Your task to perform on an android device: Open Yahoo.com Image 0: 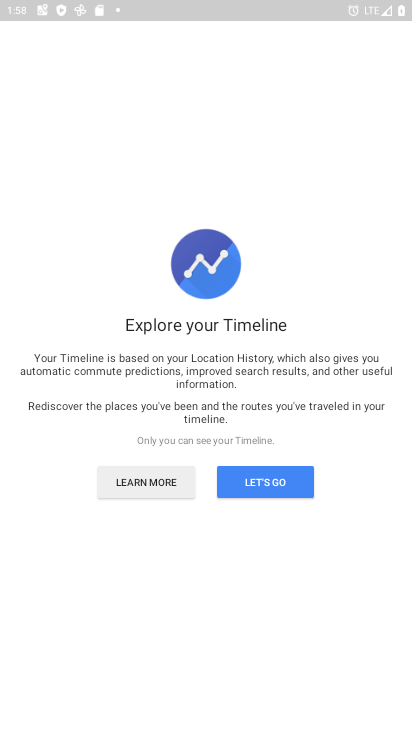
Step 0: press home button
Your task to perform on an android device: Open Yahoo.com Image 1: 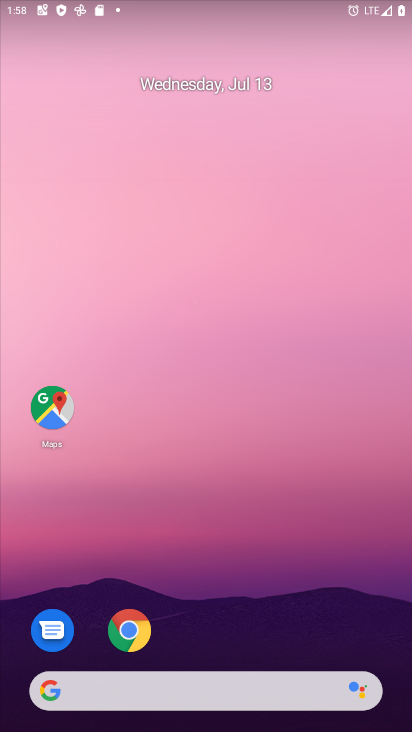
Step 1: drag from (396, 702) to (265, 52)
Your task to perform on an android device: Open Yahoo.com Image 2: 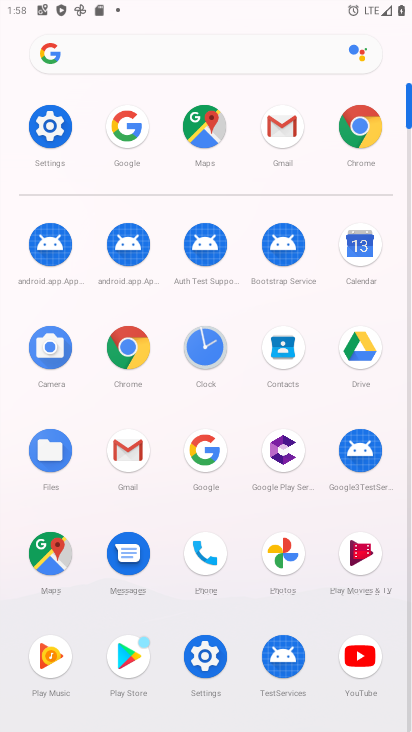
Step 2: click (202, 445)
Your task to perform on an android device: Open Yahoo.com Image 3: 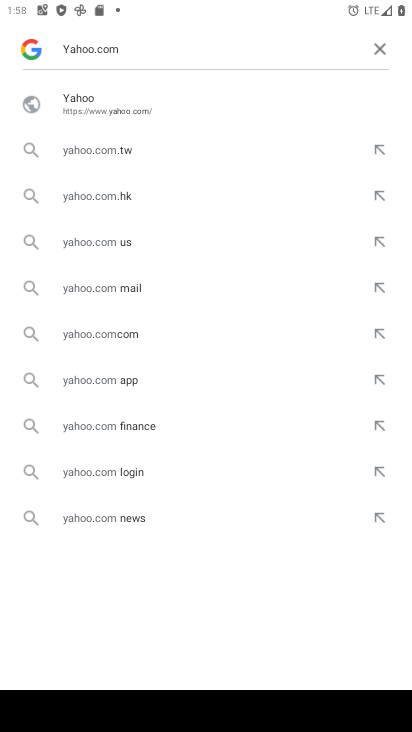
Step 3: click (72, 105)
Your task to perform on an android device: Open Yahoo.com Image 4: 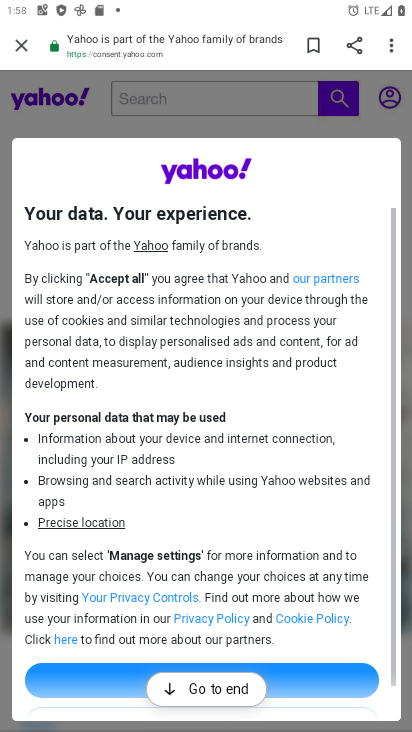
Step 4: task complete